Your task to perform on an android device: Open the map Image 0: 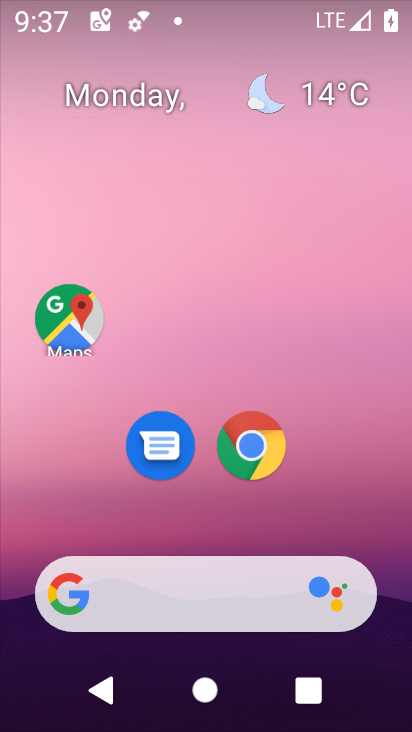
Step 0: click (69, 314)
Your task to perform on an android device: Open the map Image 1: 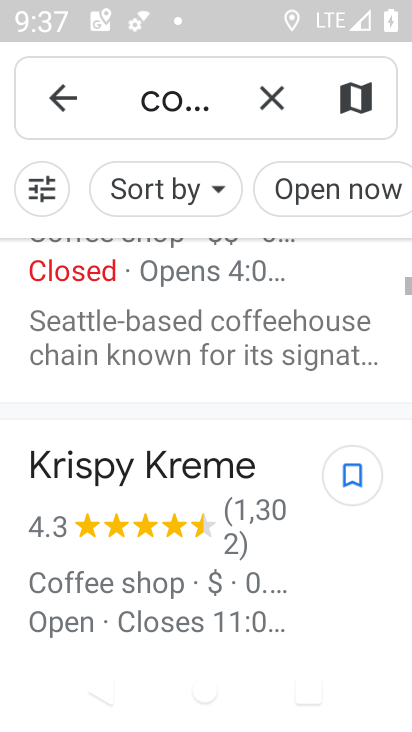
Step 1: click (75, 100)
Your task to perform on an android device: Open the map Image 2: 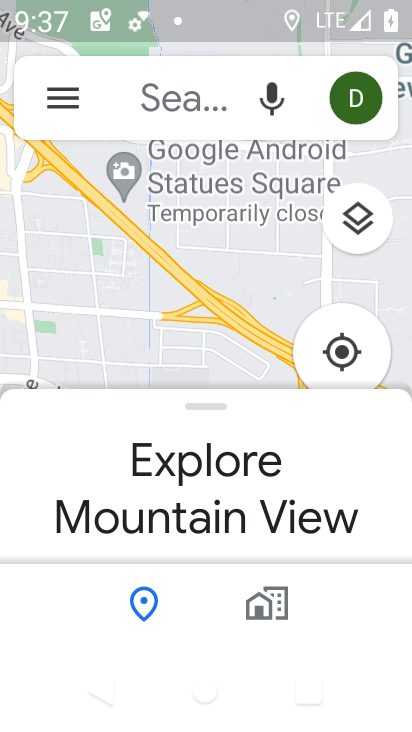
Step 2: task complete